Your task to perform on an android device: toggle location history Image 0: 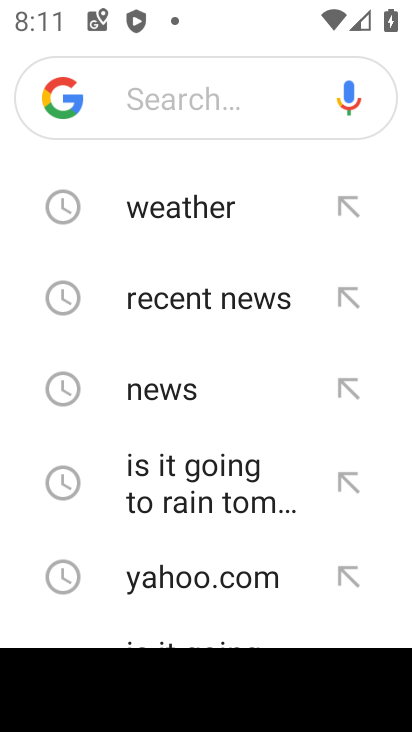
Step 0: press home button
Your task to perform on an android device: toggle location history Image 1: 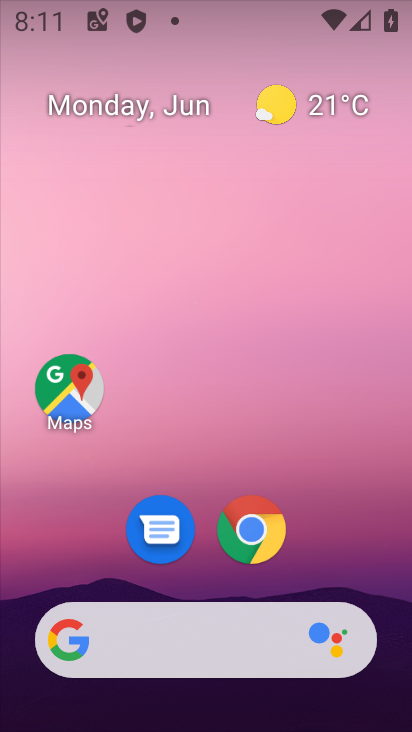
Step 1: drag from (353, 507) to (387, 217)
Your task to perform on an android device: toggle location history Image 2: 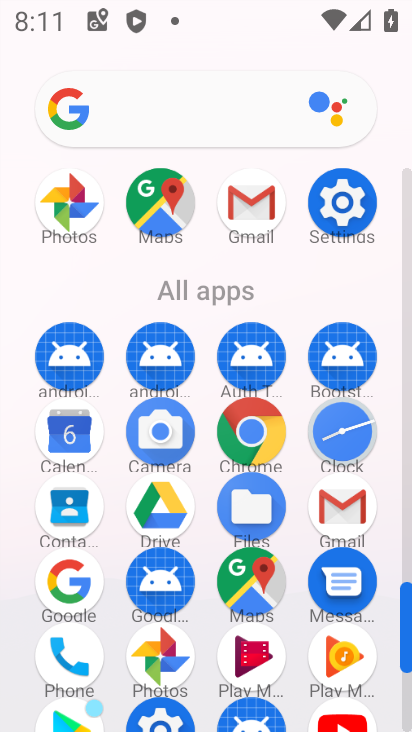
Step 2: click (348, 208)
Your task to perform on an android device: toggle location history Image 3: 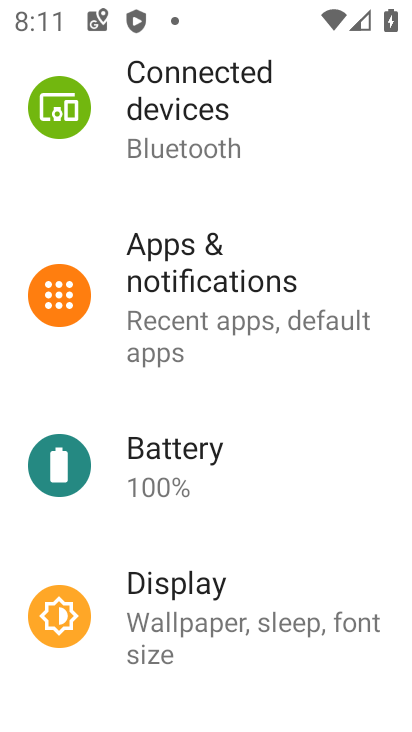
Step 3: drag from (298, 525) to (360, 281)
Your task to perform on an android device: toggle location history Image 4: 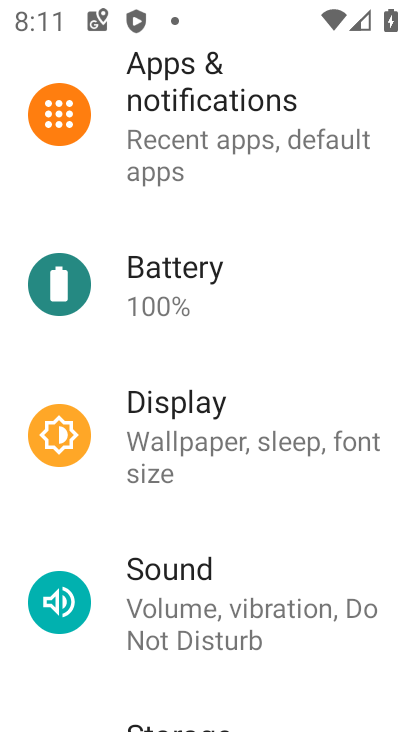
Step 4: drag from (321, 666) to (345, 391)
Your task to perform on an android device: toggle location history Image 5: 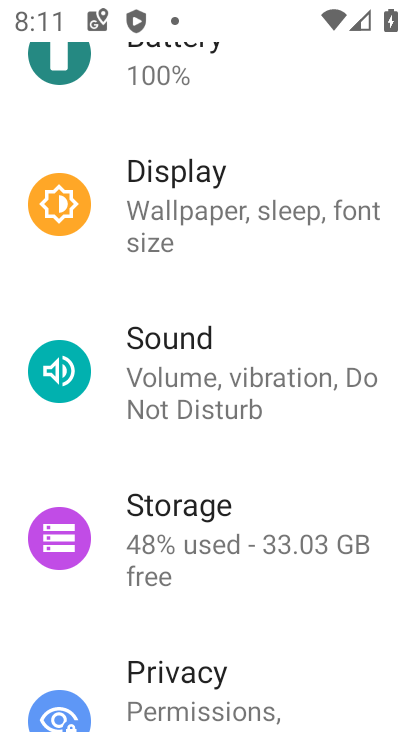
Step 5: drag from (292, 649) to (311, 528)
Your task to perform on an android device: toggle location history Image 6: 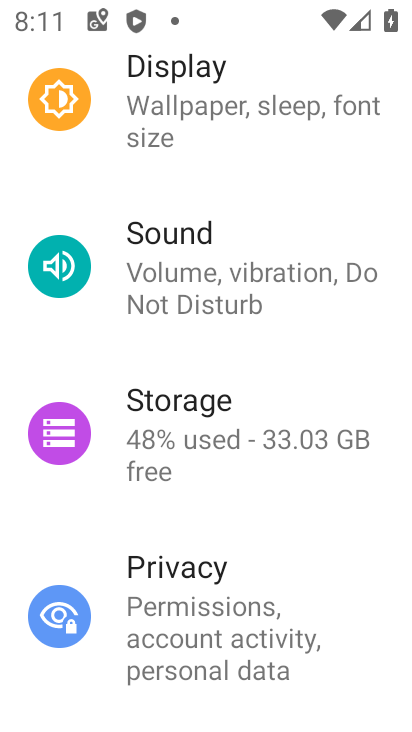
Step 6: drag from (324, 611) to (335, 338)
Your task to perform on an android device: toggle location history Image 7: 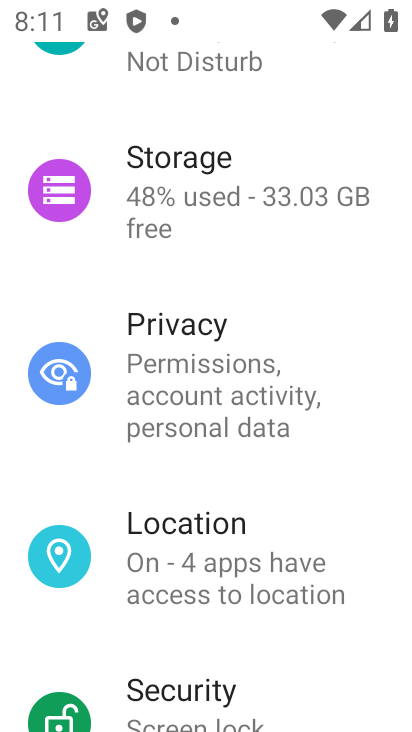
Step 7: click (248, 543)
Your task to perform on an android device: toggle location history Image 8: 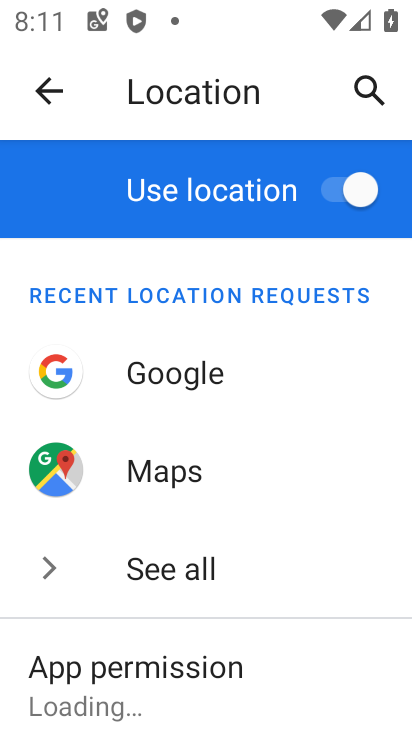
Step 8: drag from (285, 676) to (300, 558)
Your task to perform on an android device: toggle location history Image 9: 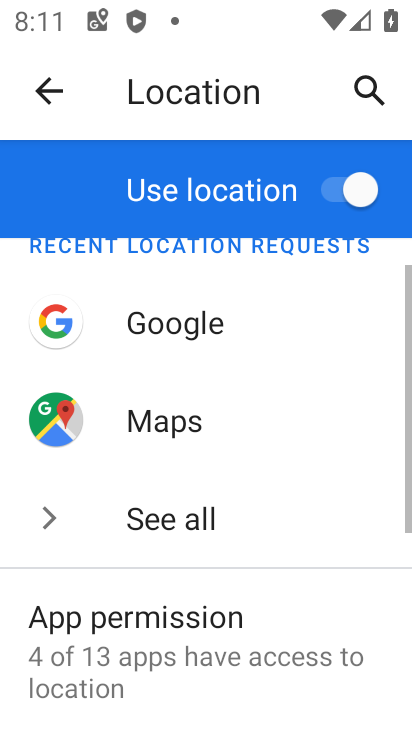
Step 9: drag from (275, 640) to (307, 397)
Your task to perform on an android device: toggle location history Image 10: 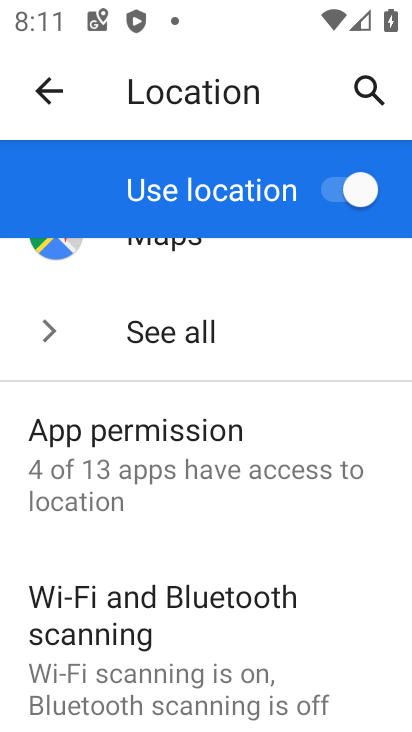
Step 10: drag from (257, 675) to (327, 255)
Your task to perform on an android device: toggle location history Image 11: 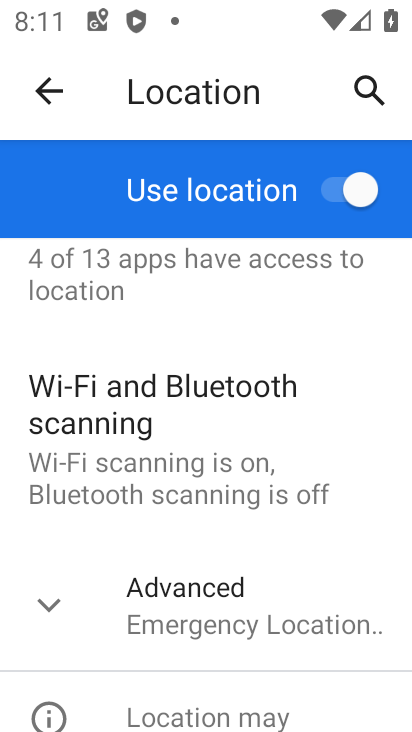
Step 11: click (221, 619)
Your task to perform on an android device: toggle location history Image 12: 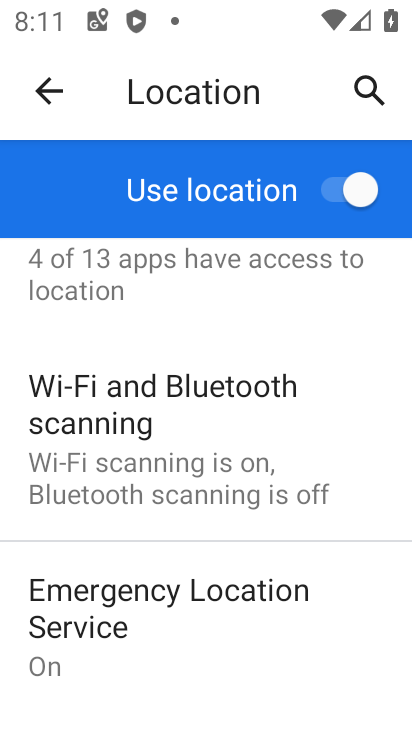
Step 12: drag from (259, 618) to (291, 378)
Your task to perform on an android device: toggle location history Image 13: 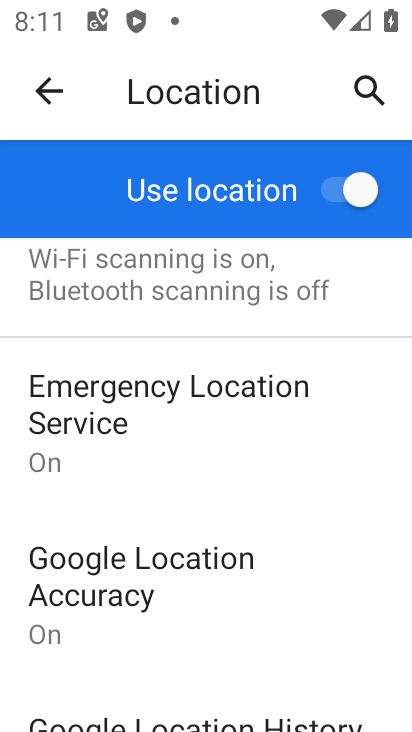
Step 13: drag from (261, 639) to (304, 398)
Your task to perform on an android device: toggle location history Image 14: 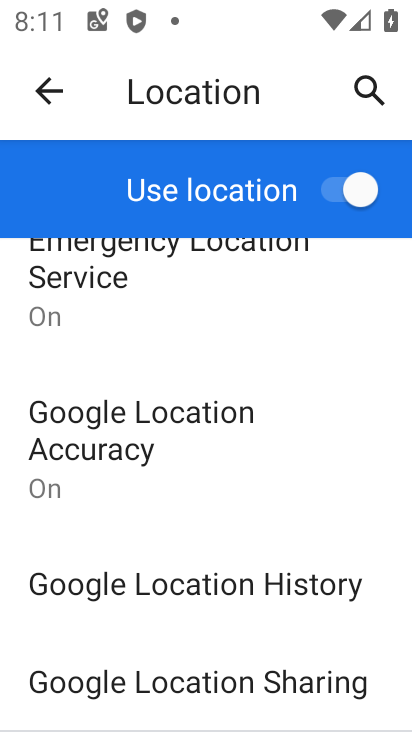
Step 14: click (235, 613)
Your task to perform on an android device: toggle location history Image 15: 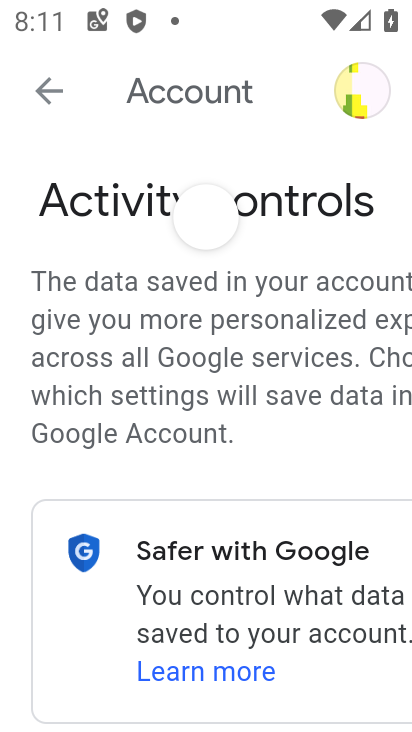
Step 15: drag from (273, 672) to (319, 494)
Your task to perform on an android device: toggle location history Image 16: 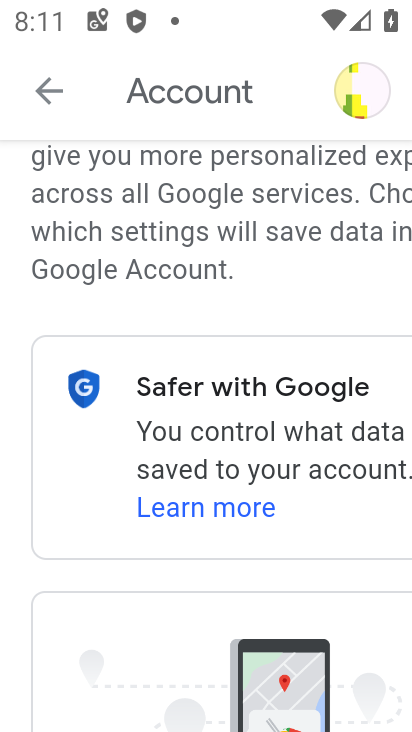
Step 16: drag from (328, 650) to (382, 359)
Your task to perform on an android device: toggle location history Image 17: 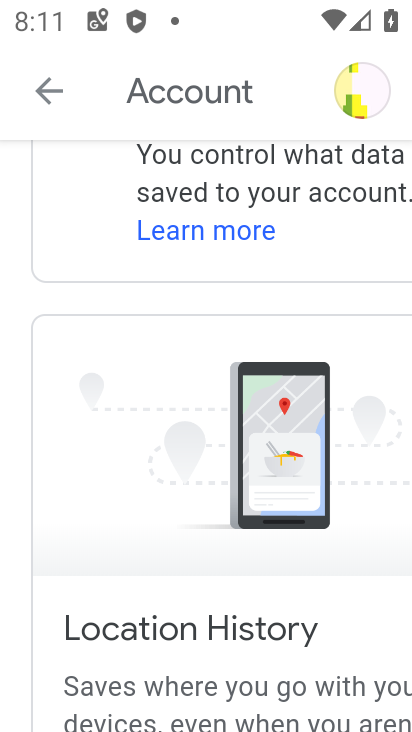
Step 17: drag from (335, 643) to (378, 463)
Your task to perform on an android device: toggle location history Image 18: 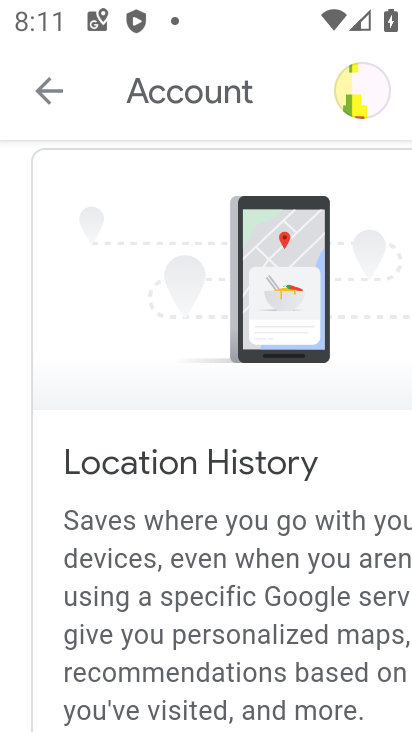
Step 18: drag from (321, 642) to (371, 423)
Your task to perform on an android device: toggle location history Image 19: 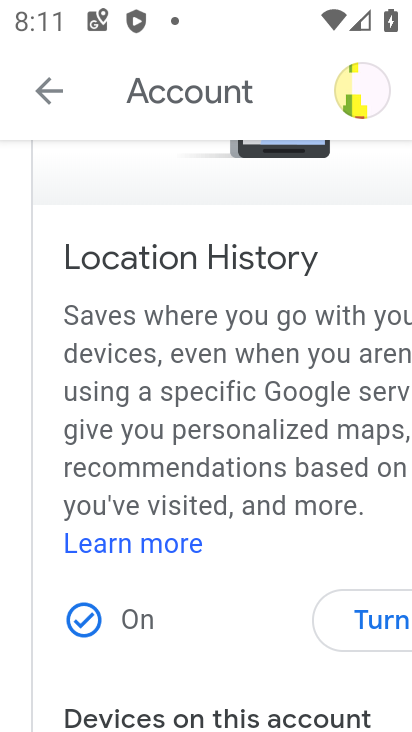
Step 19: click (357, 605)
Your task to perform on an android device: toggle location history Image 20: 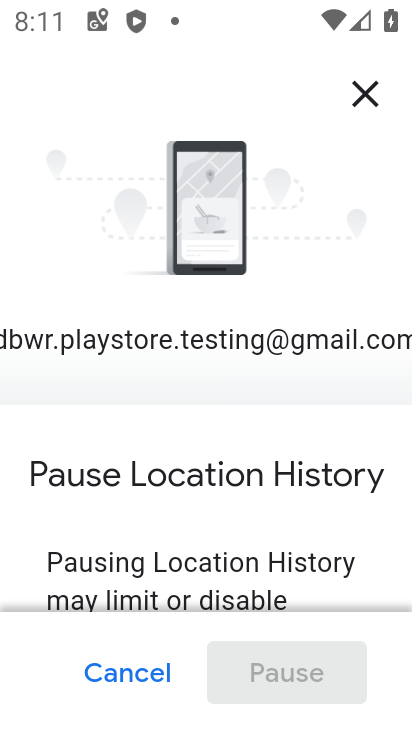
Step 20: task complete